Your task to perform on an android device: change the clock display to show seconds Image 0: 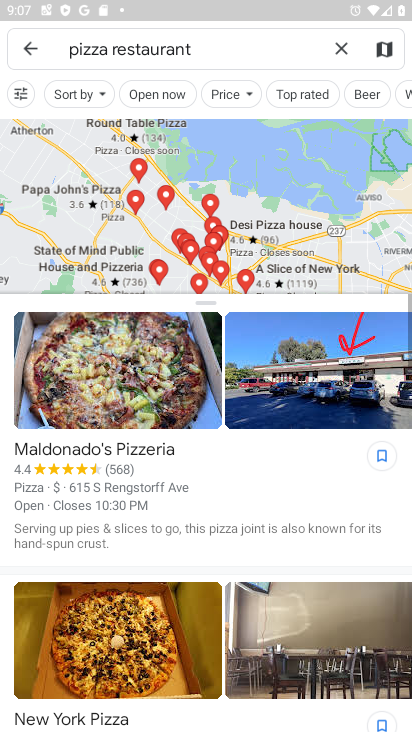
Step 0: press home button
Your task to perform on an android device: change the clock display to show seconds Image 1: 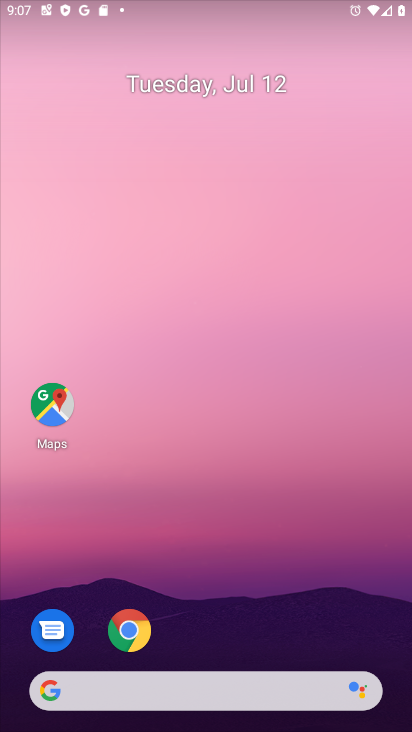
Step 1: drag from (235, 594) to (265, 207)
Your task to perform on an android device: change the clock display to show seconds Image 2: 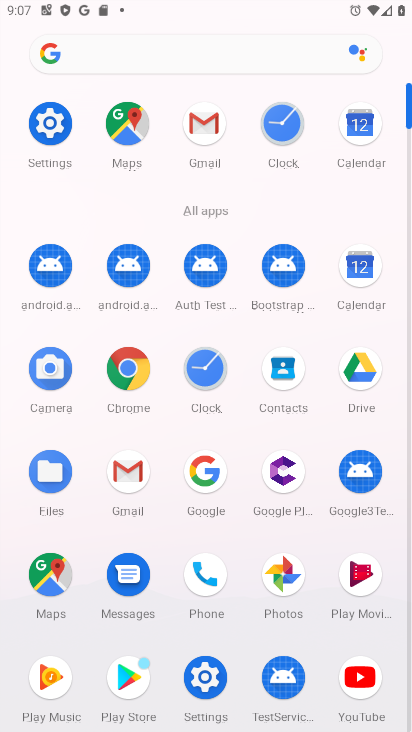
Step 2: click (213, 368)
Your task to perform on an android device: change the clock display to show seconds Image 3: 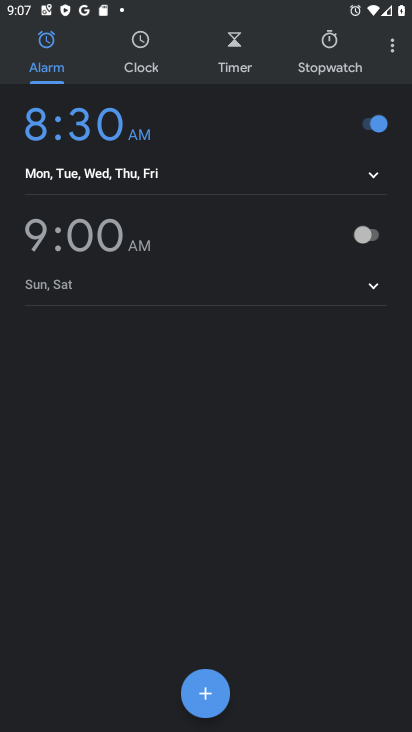
Step 3: click (390, 44)
Your task to perform on an android device: change the clock display to show seconds Image 4: 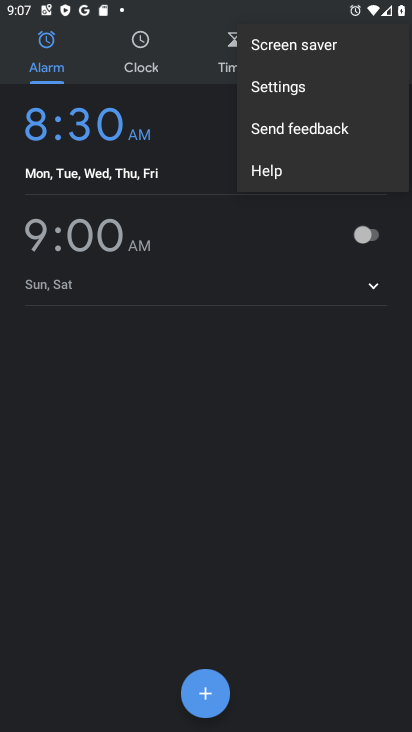
Step 4: click (336, 85)
Your task to perform on an android device: change the clock display to show seconds Image 5: 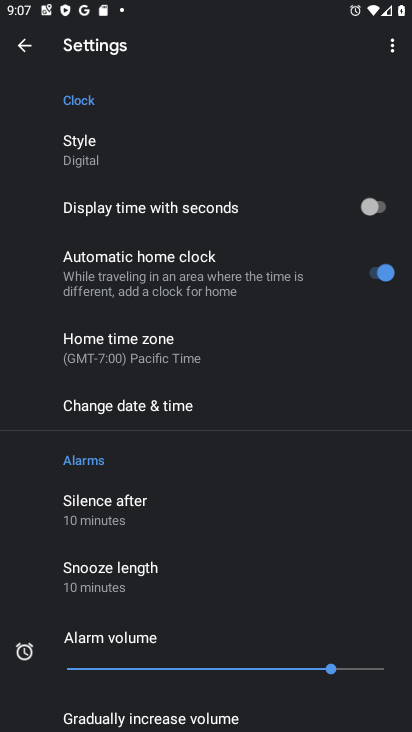
Step 5: click (372, 218)
Your task to perform on an android device: change the clock display to show seconds Image 6: 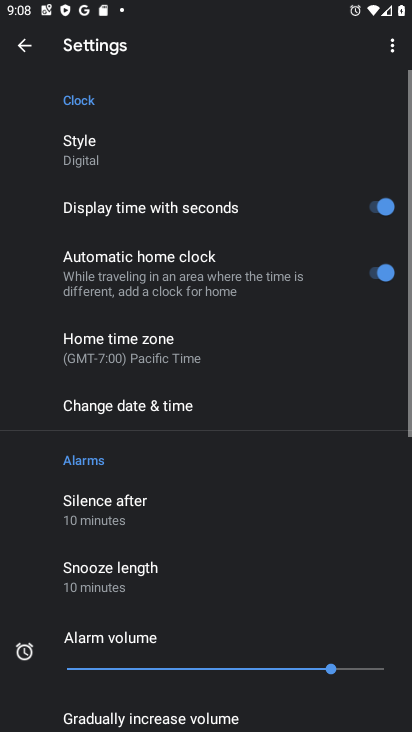
Step 6: task complete